Your task to perform on an android device: turn on the 24-hour format for clock Image 0: 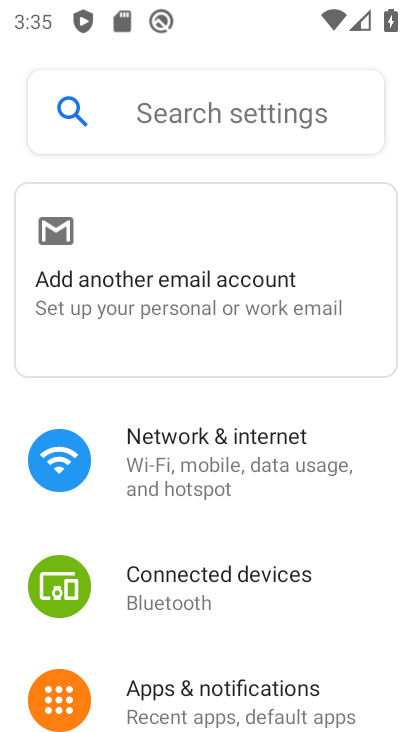
Step 0: press back button
Your task to perform on an android device: turn on the 24-hour format for clock Image 1: 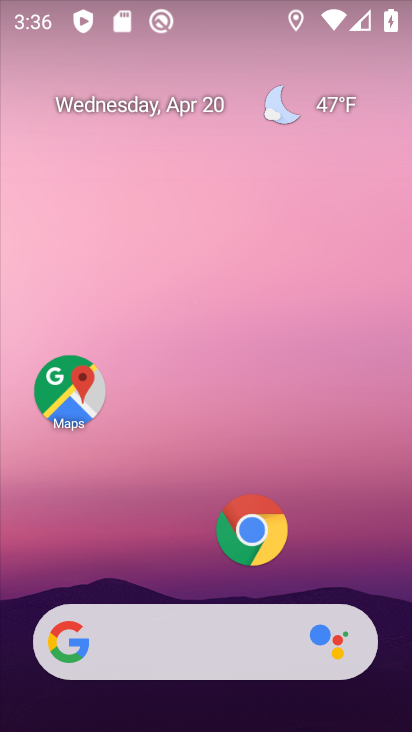
Step 1: drag from (172, 557) to (265, 94)
Your task to perform on an android device: turn on the 24-hour format for clock Image 2: 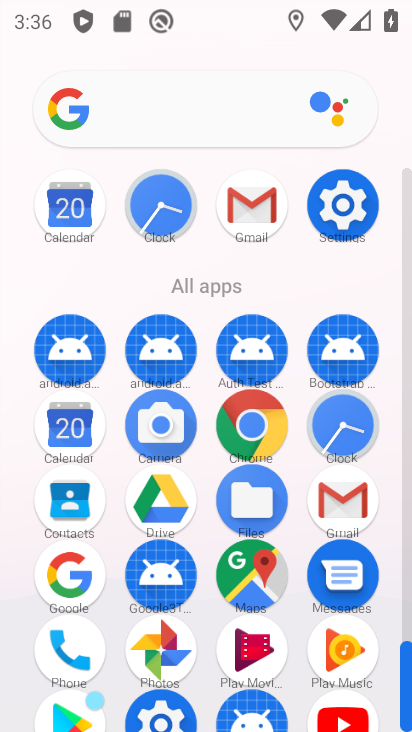
Step 2: click (345, 427)
Your task to perform on an android device: turn on the 24-hour format for clock Image 3: 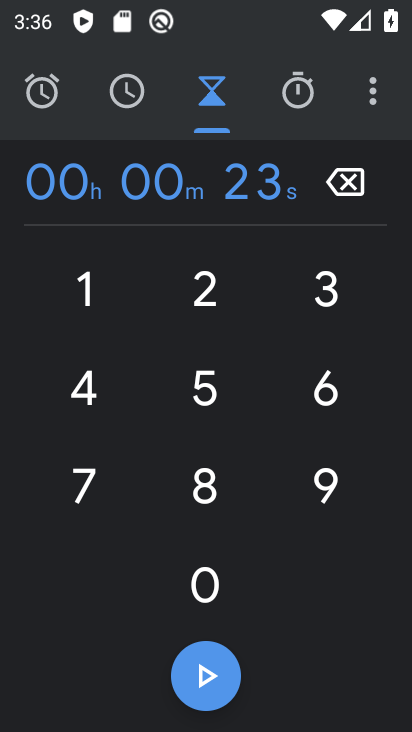
Step 3: click (377, 78)
Your task to perform on an android device: turn on the 24-hour format for clock Image 4: 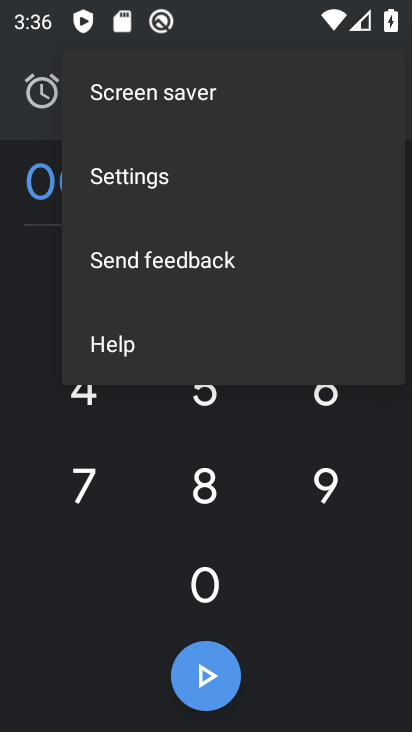
Step 4: click (164, 184)
Your task to perform on an android device: turn on the 24-hour format for clock Image 5: 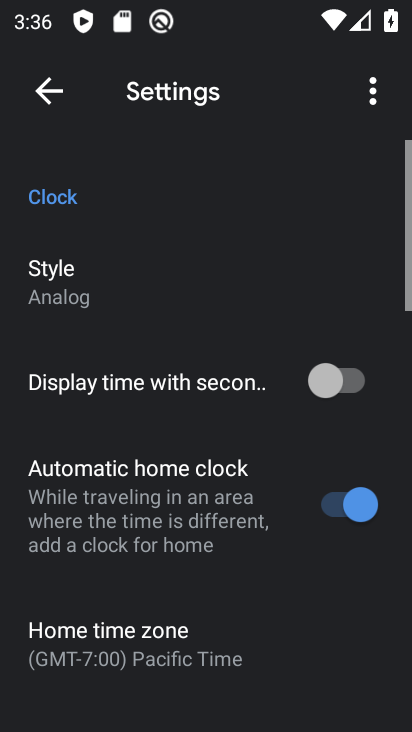
Step 5: drag from (189, 620) to (248, 284)
Your task to perform on an android device: turn on the 24-hour format for clock Image 6: 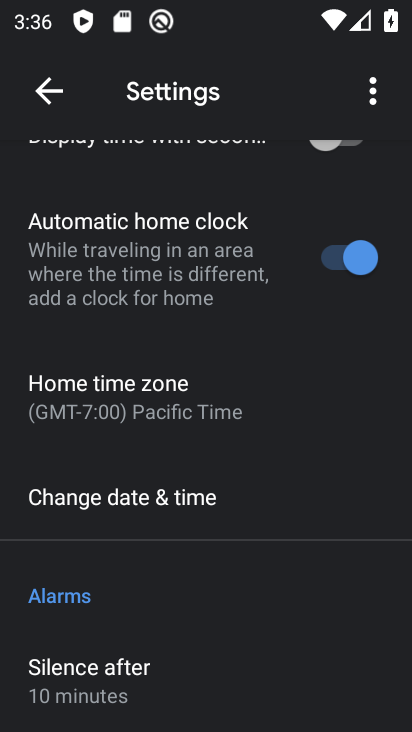
Step 6: click (154, 505)
Your task to perform on an android device: turn on the 24-hour format for clock Image 7: 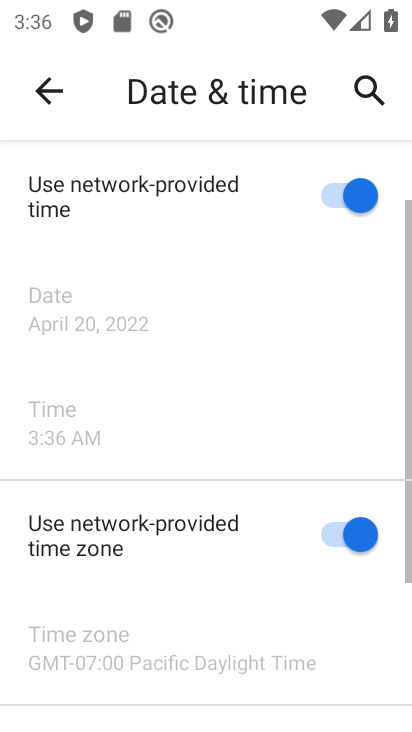
Step 7: drag from (179, 611) to (320, 128)
Your task to perform on an android device: turn on the 24-hour format for clock Image 8: 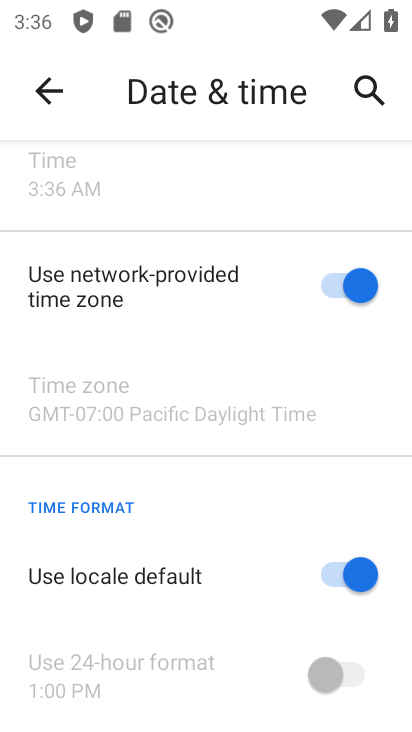
Step 8: click (353, 580)
Your task to perform on an android device: turn on the 24-hour format for clock Image 9: 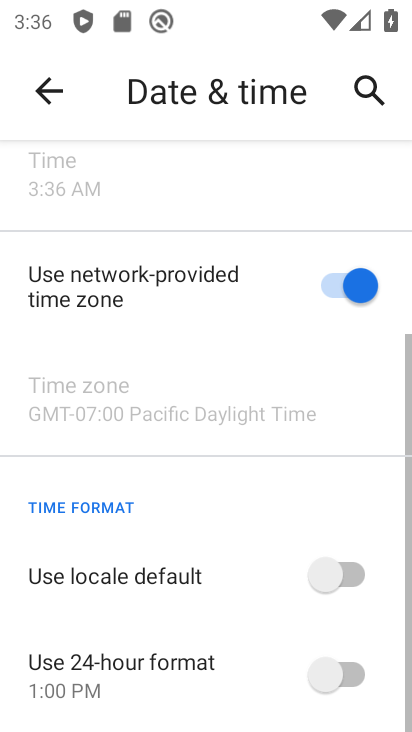
Step 9: click (338, 672)
Your task to perform on an android device: turn on the 24-hour format for clock Image 10: 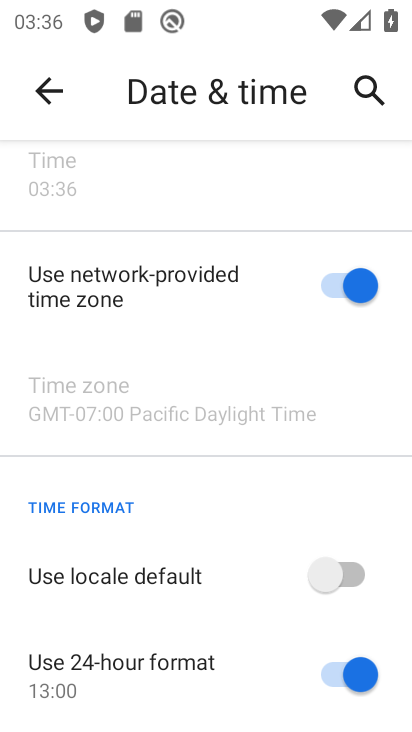
Step 10: task complete